Your task to perform on an android device: open a new tab in the chrome app Image 0: 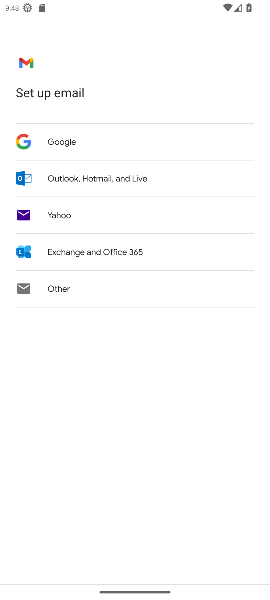
Step 0: press home button
Your task to perform on an android device: open a new tab in the chrome app Image 1: 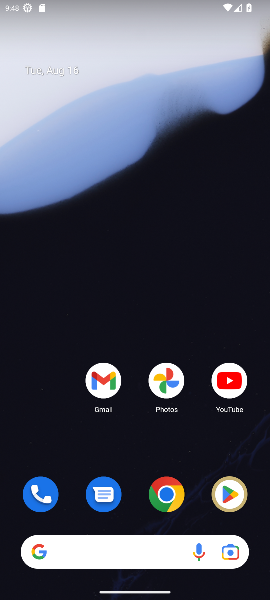
Step 1: click (167, 488)
Your task to perform on an android device: open a new tab in the chrome app Image 2: 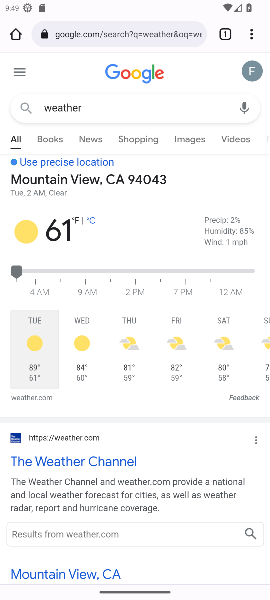
Step 2: task complete